Your task to perform on an android device: When is my next appointment? Image 0: 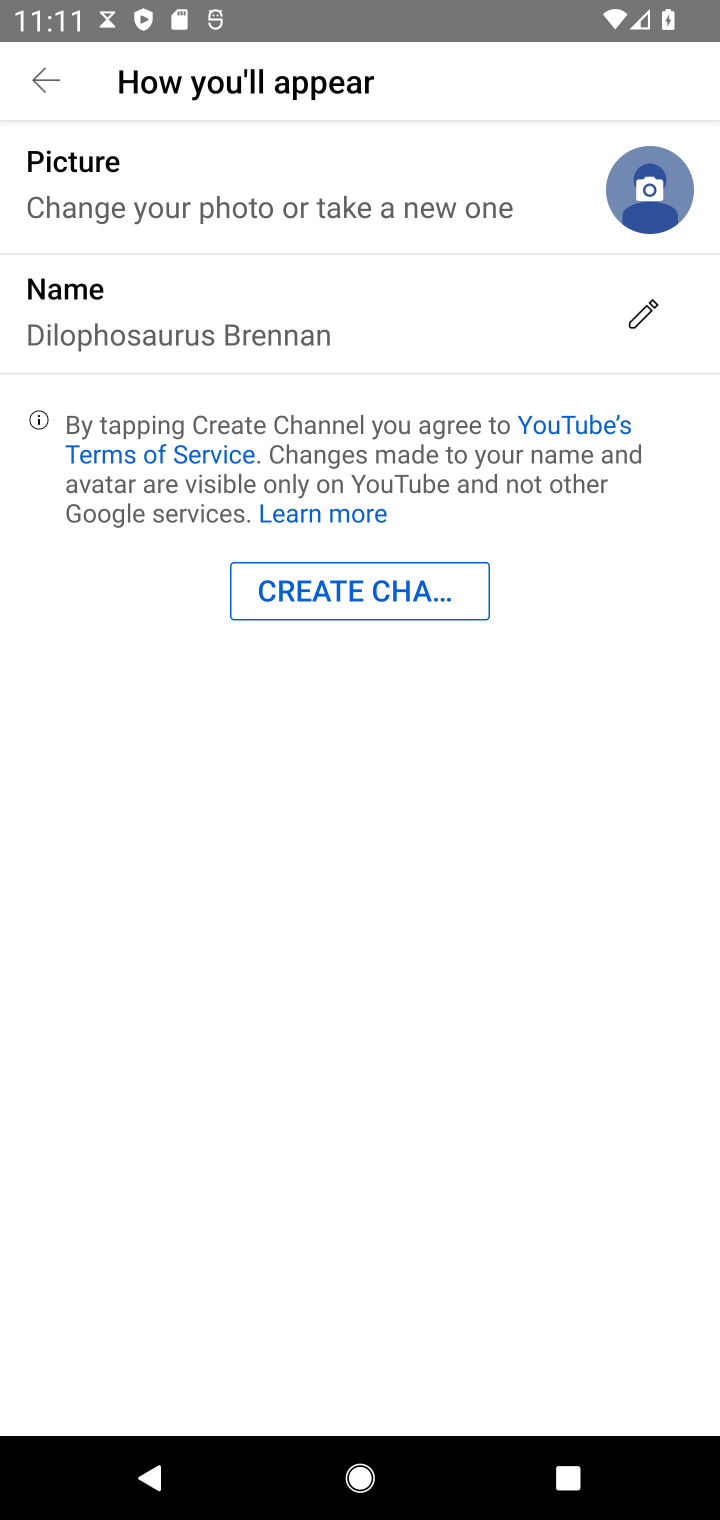
Step 0: press back button
Your task to perform on an android device: When is my next appointment? Image 1: 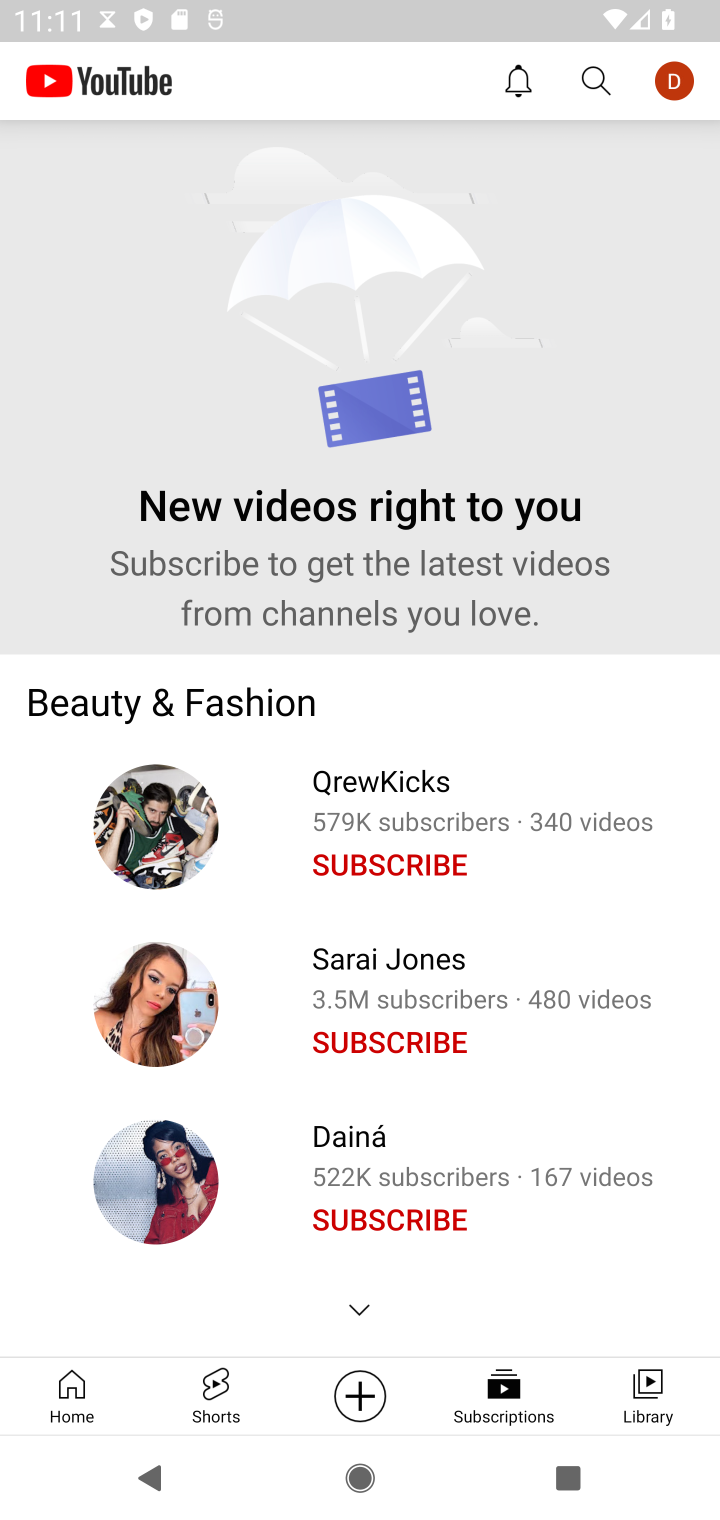
Step 1: press back button
Your task to perform on an android device: When is my next appointment? Image 2: 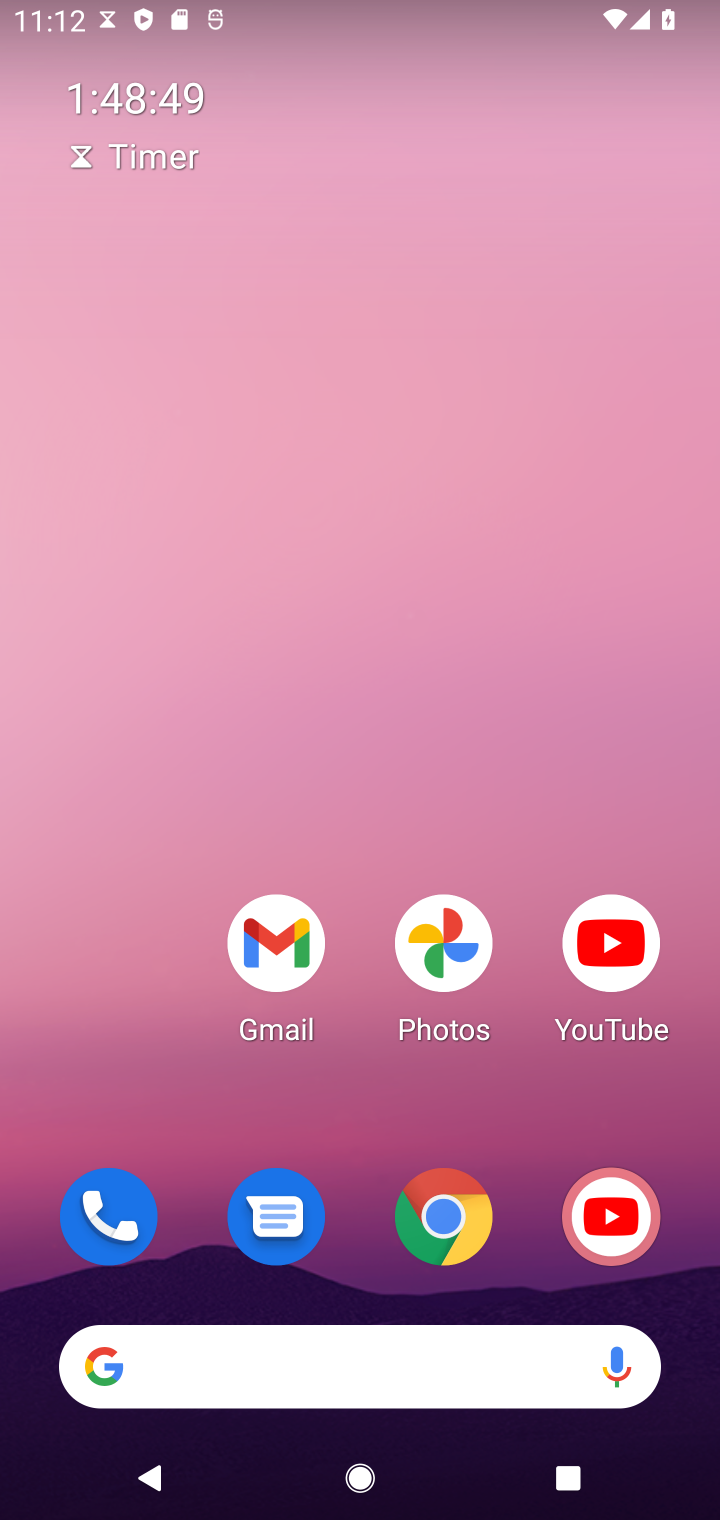
Step 2: drag from (131, 1116) to (183, 70)
Your task to perform on an android device: When is my next appointment? Image 3: 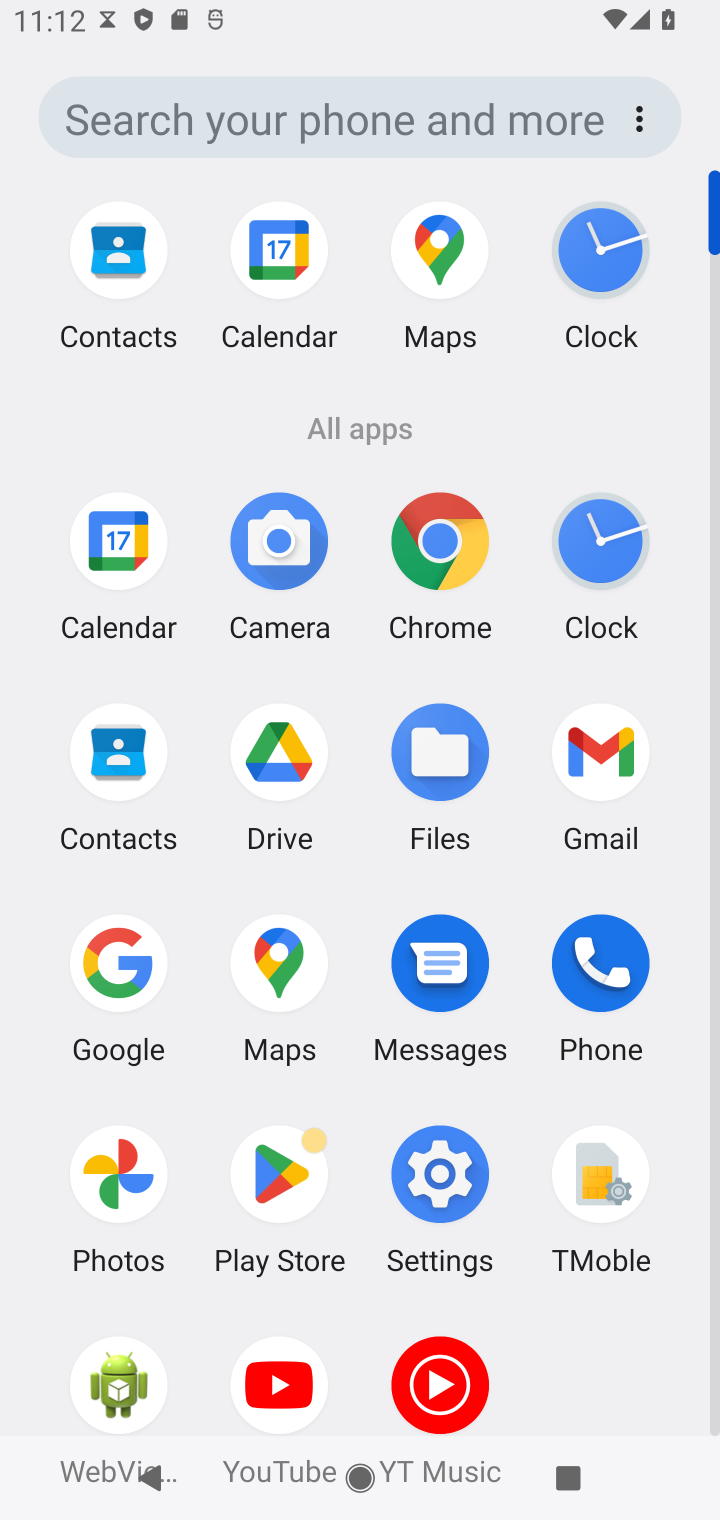
Step 3: click (121, 547)
Your task to perform on an android device: When is my next appointment? Image 4: 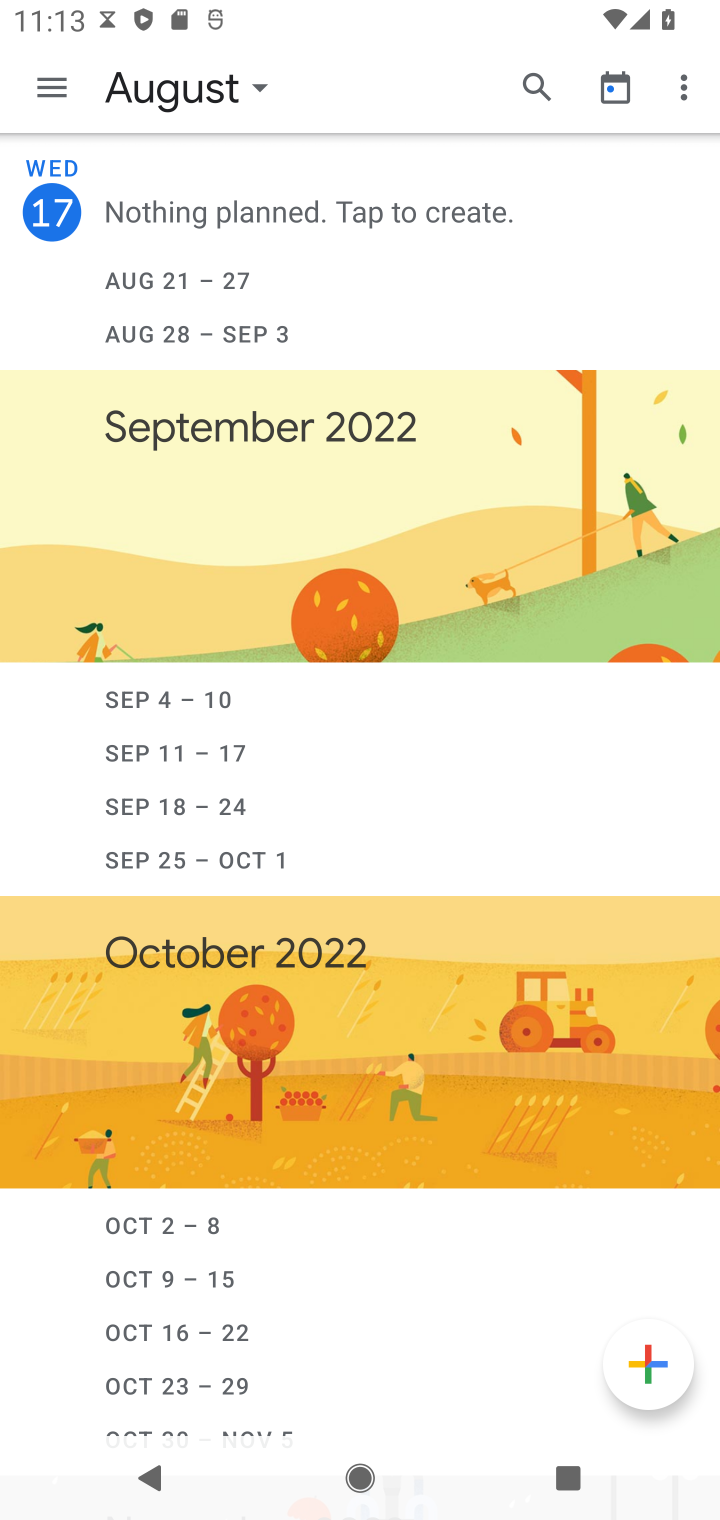
Step 4: task complete